Your task to perform on an android device: toggle pop-ups in chrome Image 0: 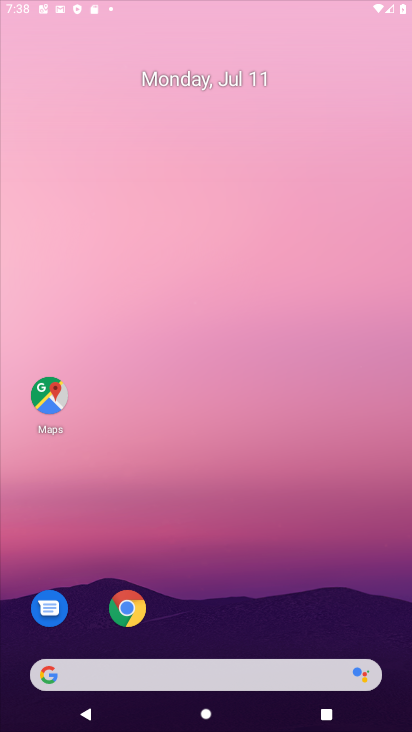
Step 0: click (330, 391)
Your task to perform on an android device: toggle pop-ups in chrome Image 1: 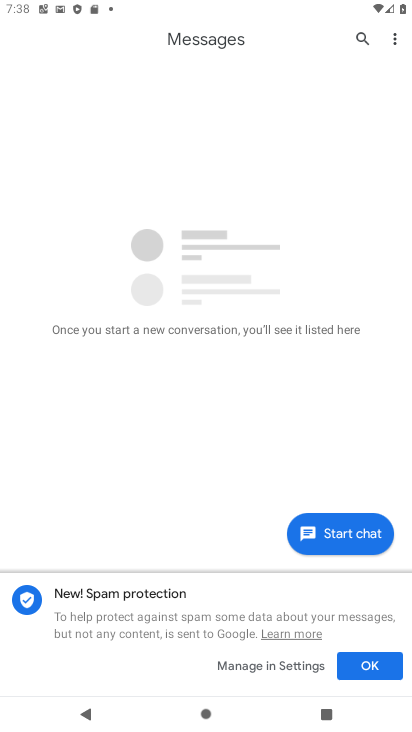
Step 1: press home button
Your task to perform on an android device: toggle pop-ups in chrome Image 2: 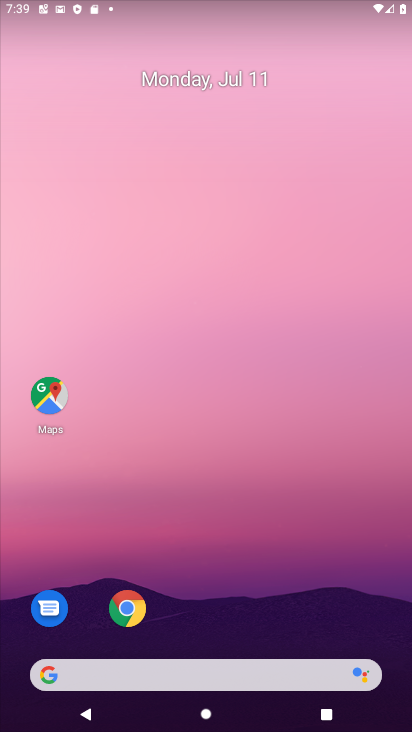
Step 2: click (128, 594)
Your task to perform on an android device: toggle pop-ups in chrome Image 3: 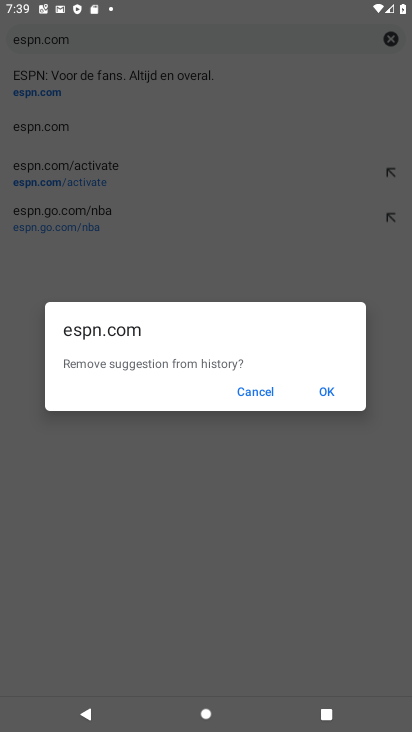
Step 3: press home button
Your task to perform on an android device: toggle pop-ups in chrome Image 4: 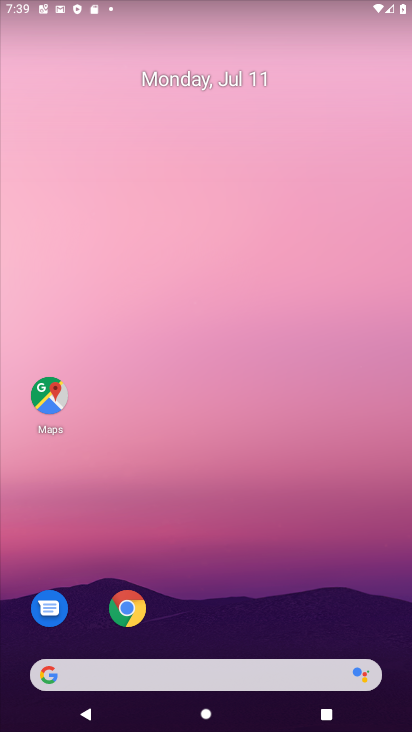
Step 4: click (144, 604)
Your task to perform on an android device: toggle pop-ups in chrome Image 5: 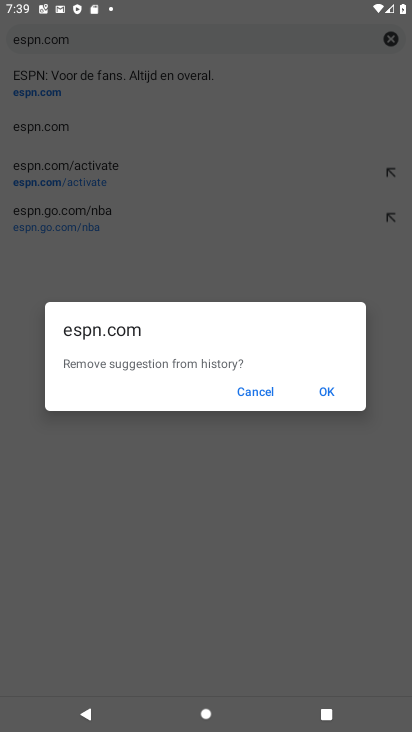
Step 5: click (327, 392)
Your task to perform on an android device: toggle pop-ups in chrome Image 6: 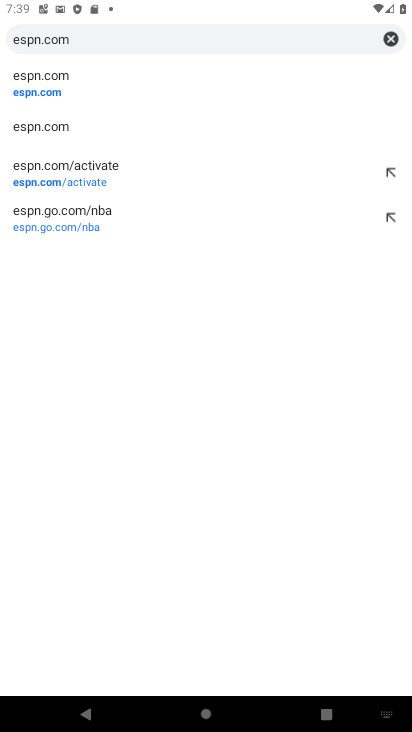
Step 6: click (384, 39)
Your task to perform on an android device: toggle pop-ups in chrome Image 7: 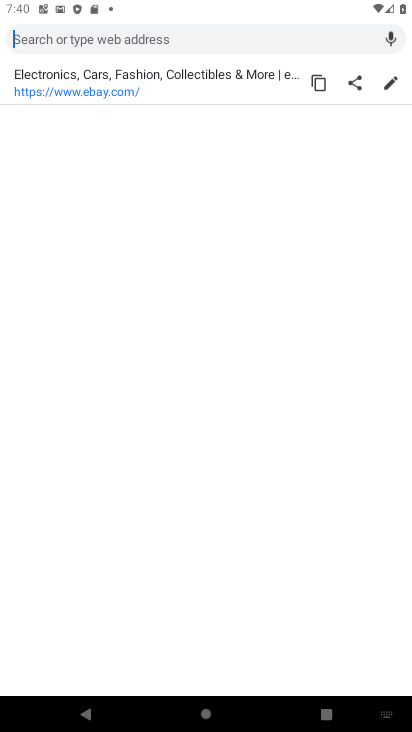
Step 7: press back button
Your task to perform on an android device: toggle pop-ups in chrome Image 8: 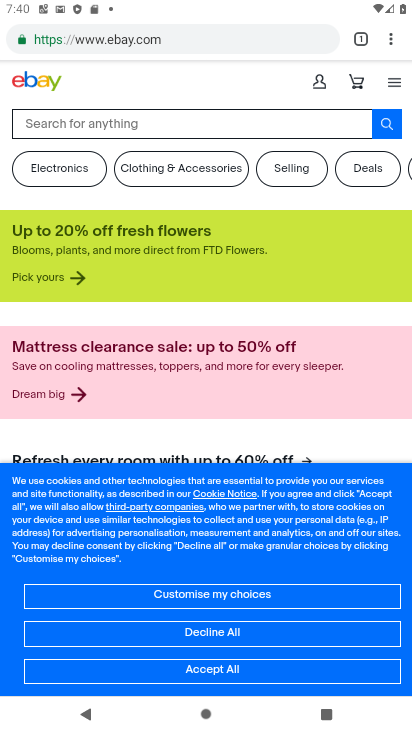
Step 8: click (397, 48)
Your task to perform on an android device: toggle pop-ups in chrome Image 9: 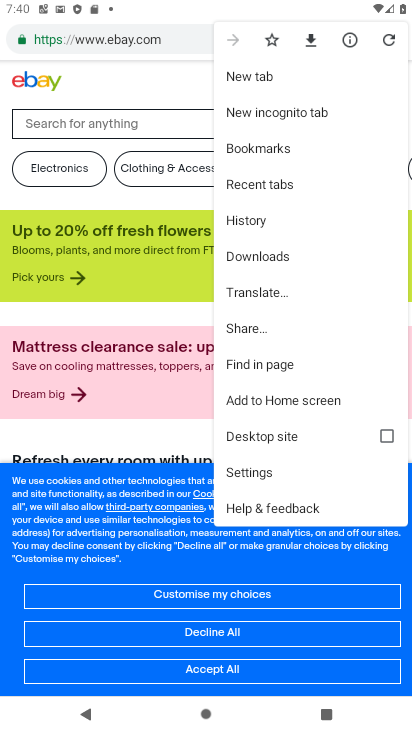
Step 9: click (266, 476)
Your task to perform on an android device: toggle pop-ups in chrome Image 10: 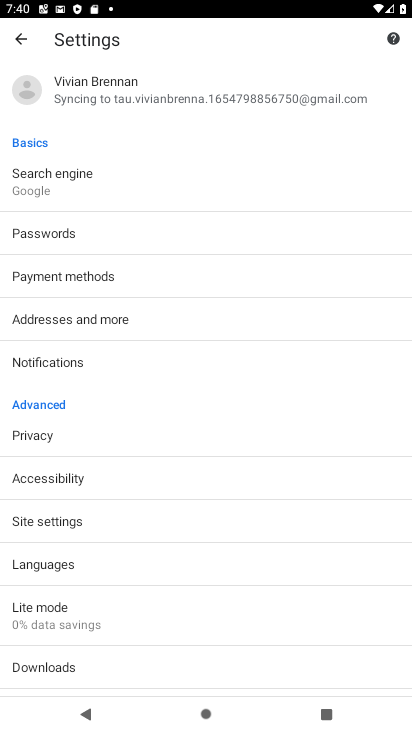
Step 10: click (122, 527)
Your task to perform on an android device: toggle pop-ups in chrome Image 11: 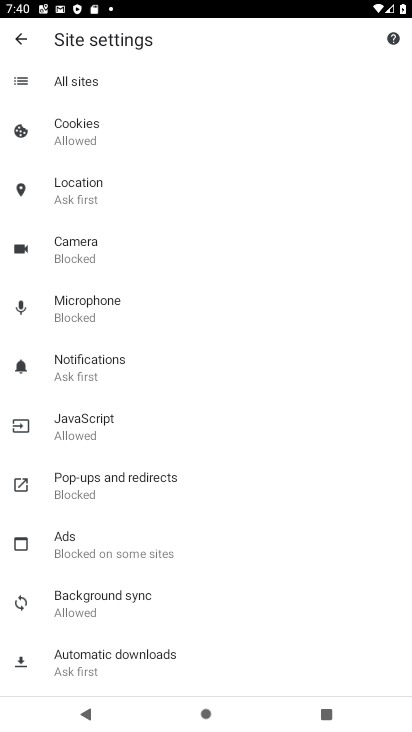
Step 11: click (130, 489)
Your task to perform on an android device: toggle pop-ups in chrome Image 12: 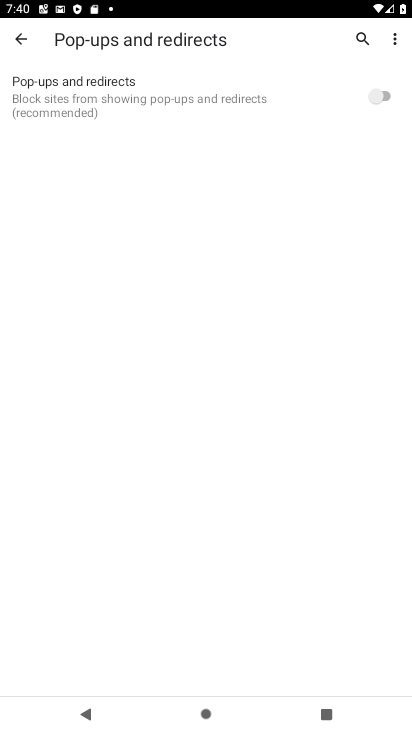
Step 12: click (374, 82)
Your task to perform on an android device: toggle pop-ups in chrome Image 13: 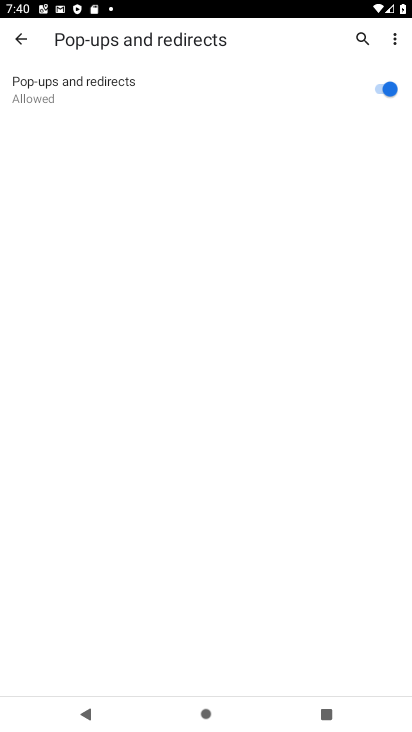
Step 13: task complete